Your task to perform on an android device: toggle improve location accuracy Image 0: 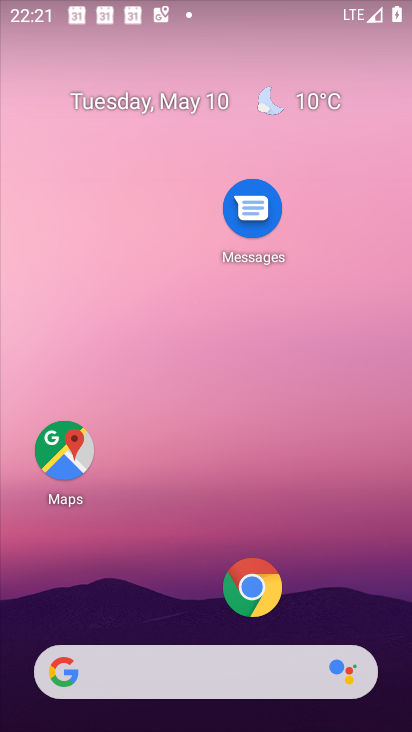
Step 0: drag from (246, 466) to (334, 90)
Your task to perform on an android device: toggle improve location accuracy Image 1: 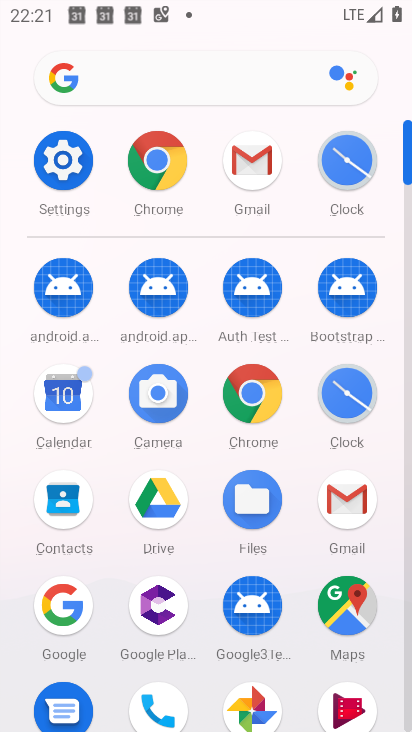
Step 1: click (76, 193)
Your task to perform on an android device: toggle improve location accuracy Image 2: 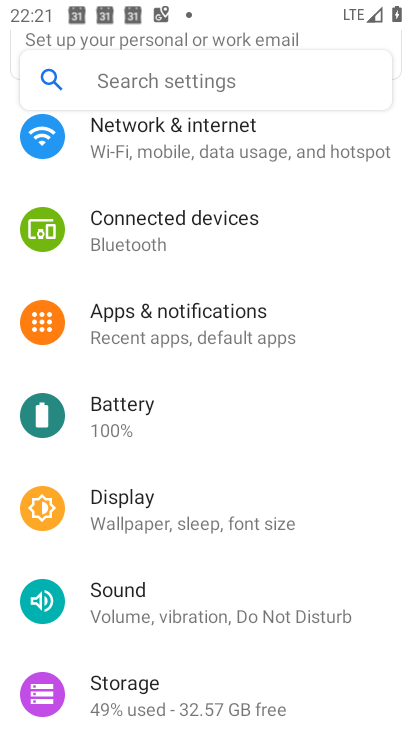
Step 2: drag from (226, 653) to (293, 312)
Your task to perform on an android device: toggle improve location accuracy Image 3: 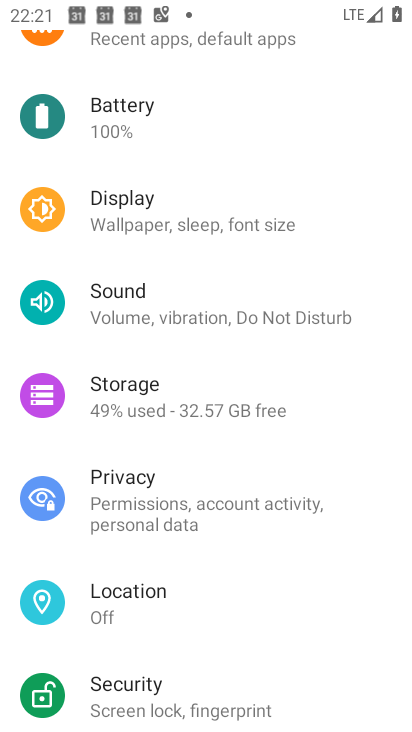
Step 3: click (175, 604)
Your task to perform on an android device: toggle improve location accuracy Image 4: 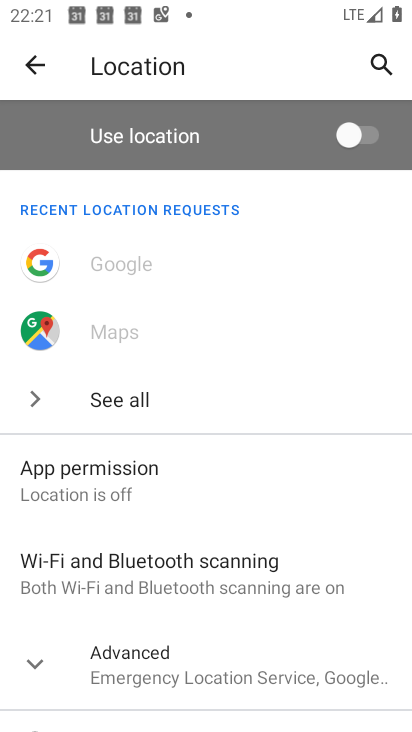
Step 4: click (209, 666)
Your task to perform on an android device: toggle improve location accuracy Image 5: 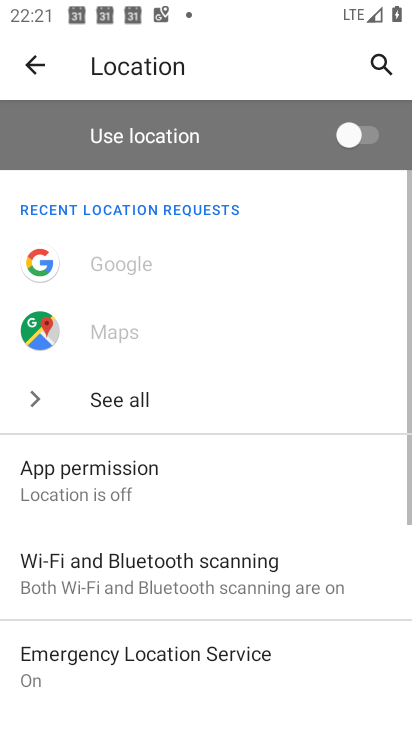
Step 5: drag from (240, 635) to (305, 203)
Your task to perform on an android device: toggle improve location accuracy Image 6: 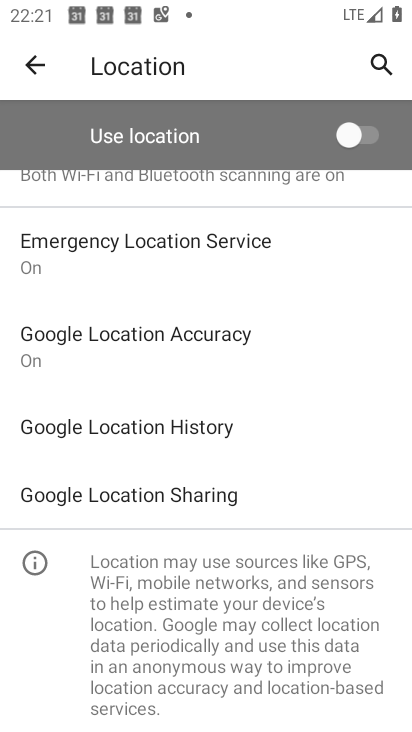
Step 6: click (215, 338)
Your task to perform on an android device: toggle improve location accuracy Image 7: 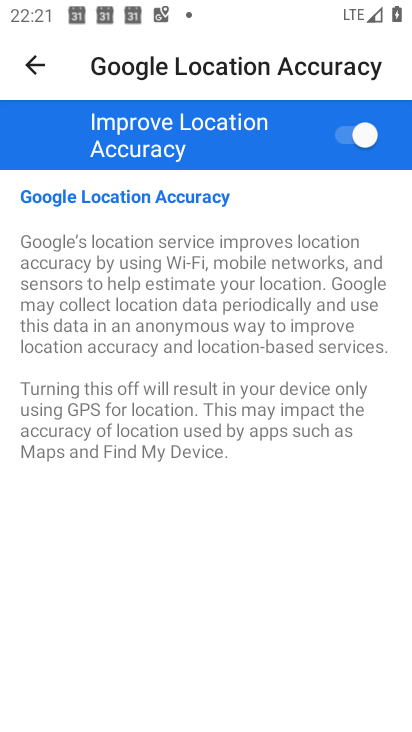
Step 7: click (347, 130)
Your task to perform on an android device: toggle improve location accuracy Image 8: 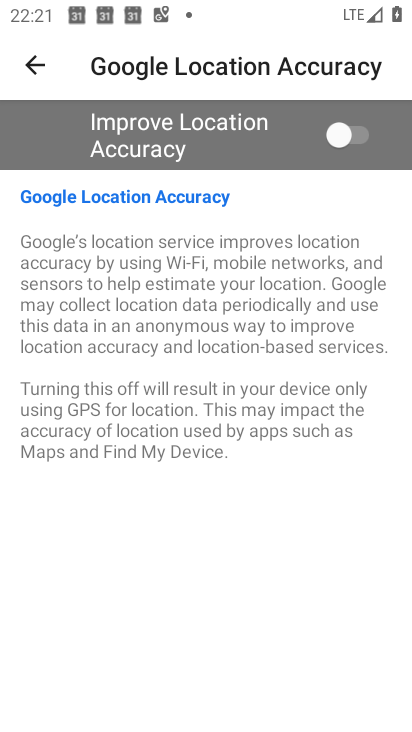
Step 8: click (282, 469)
Your task to perform on an android device: toggle improve location accuracy Image 9: 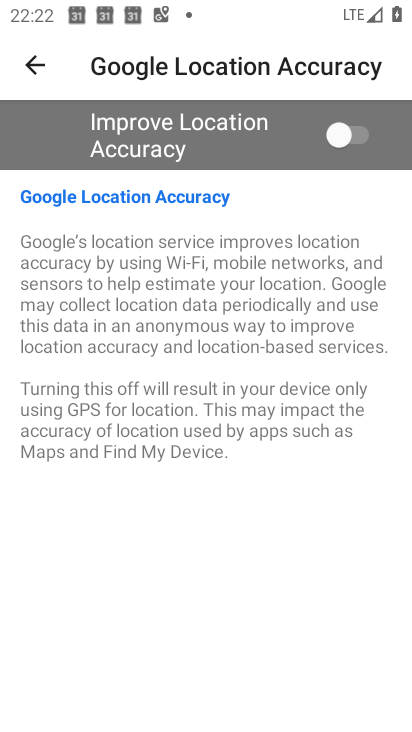
Step 9: click (283, 470)
Your task to perform on an android device: toggle improve location accuracy Image 10: 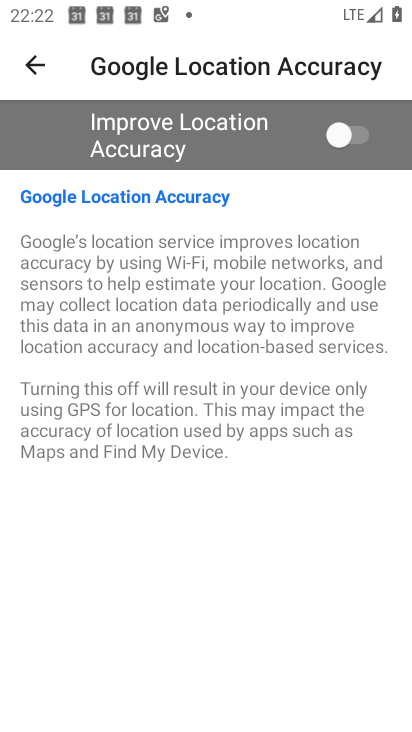
Step 10: task complete